Your task to perform on an android device: Open Google Chrome and click the shortcut for Amazon.com Image 0: 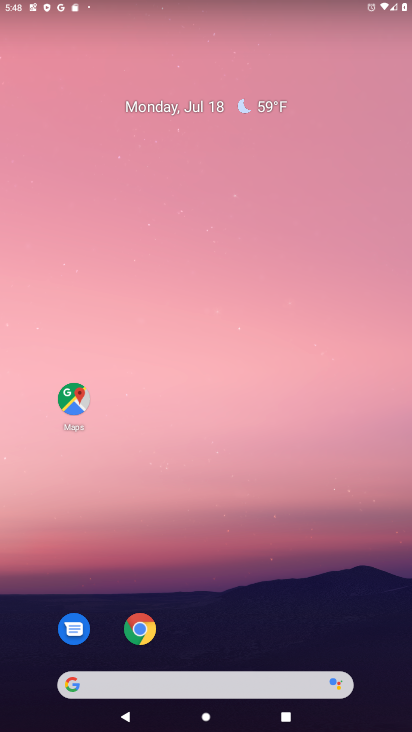
Step 0: drag from (281, 624) to (296, 101)
Your task to perform on an android device: Open Google Chrome and click the shortcut for Amazon.com Image 1: 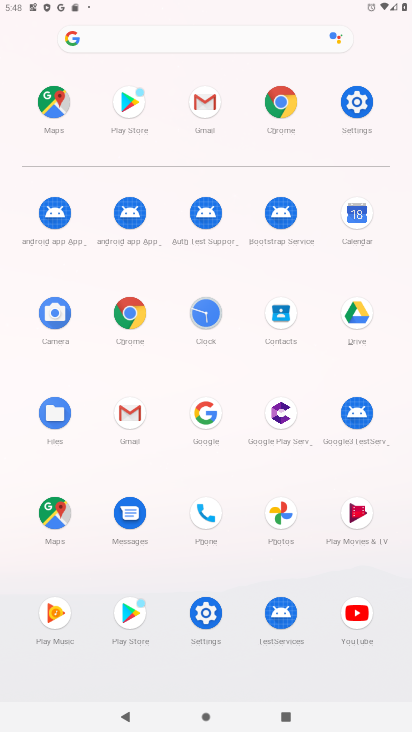
Step 1: click (125, 310)
Your task to perform on an android device: Open Google Chrome and click the shortcut for Amazon.com Image 2: 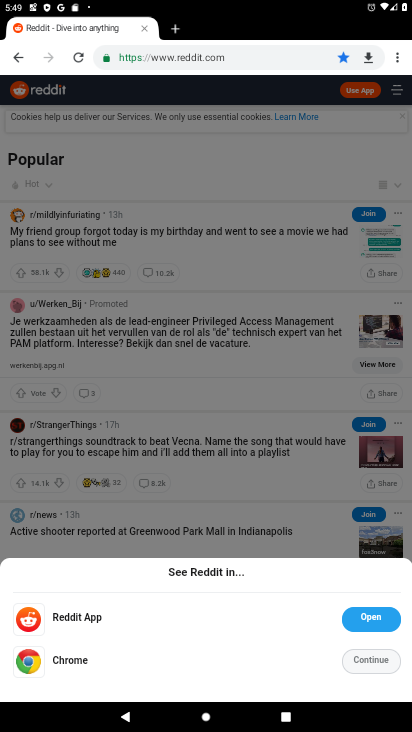
Step 2: drag from (404, 58) to (333, 58)
Your task to perform on an android device: Open Google Chrome and click the shortcut for Amazon.com Image 3: 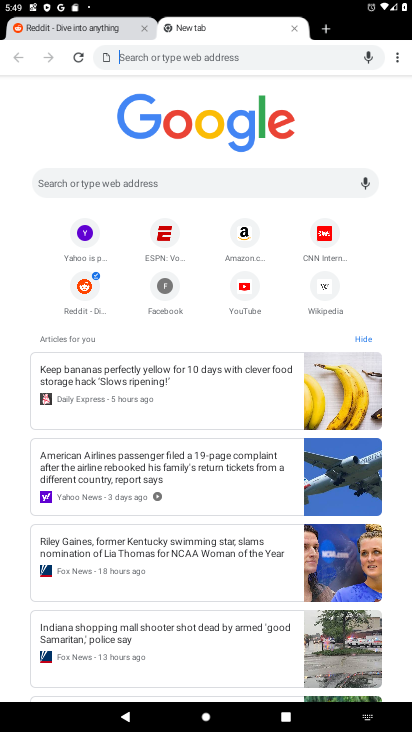
Step 3: click (238, 231)
Your task to perform on an android device: Open Google Chrome and click the shortcut for Amazon.com Image 4: 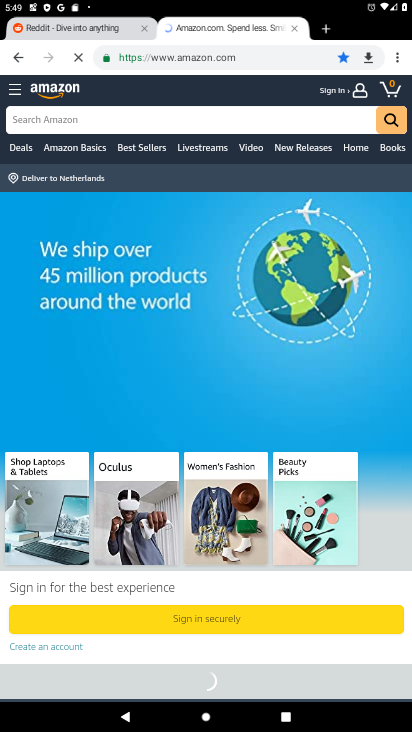
Step 4: task complete